Your task to perform on an android device: change the clock display to digital Image 0: 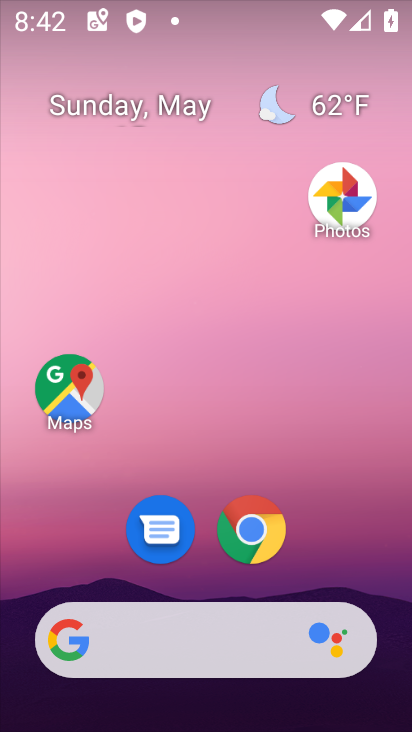
Step 0: drag from (361, 553) to (262, 128)
Your task to perform on an android device: change the clock display to digital Image 1: 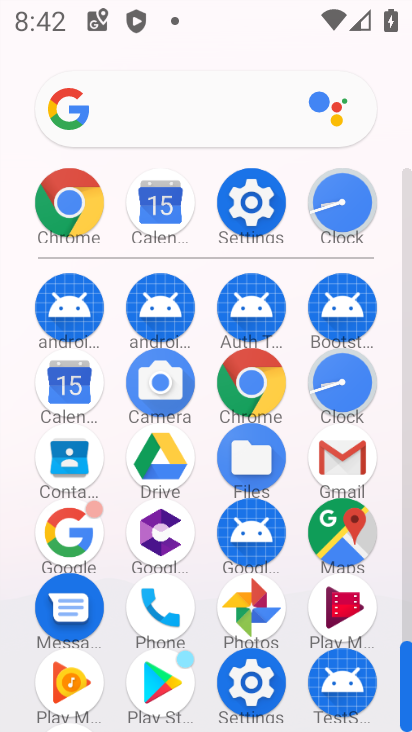
Step 1: click (318, 390)
Your task to perform on an android device: change the clock display to digital Image 2: 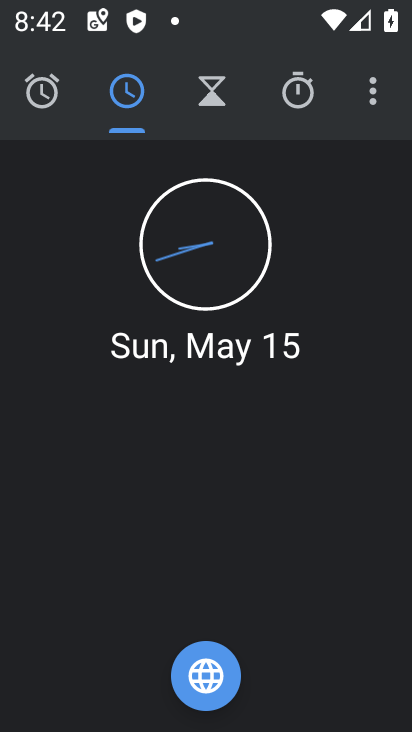
Step 2: drag from (372, 111) to (230, 189)
Your task to perform on an android device: change the clock display to digital Image 3: 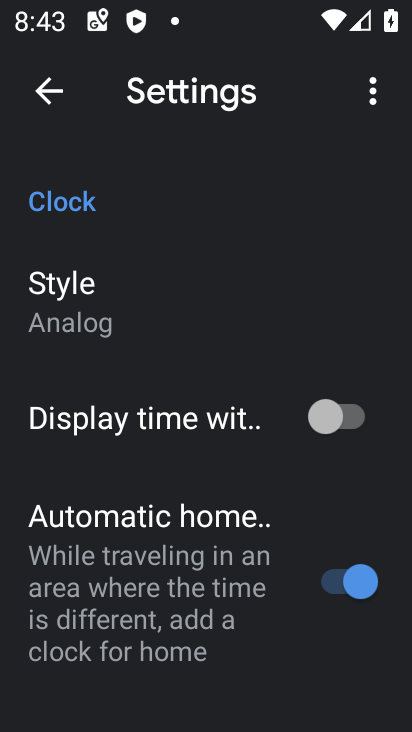
Step 3: drag from (257, 597) to (275, 307)
Your task to perform on an android device: change the clock display to digital Image 4: 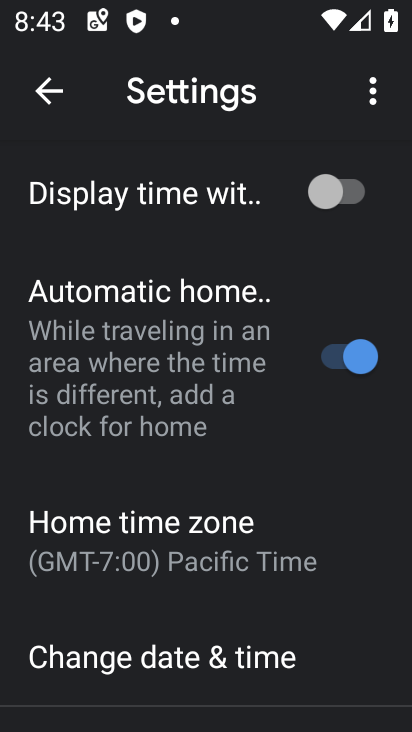
Step 4: drag from (233, 308) to (218, 616)
Your task to perform on an android device: change the clock display to digital Image 5: 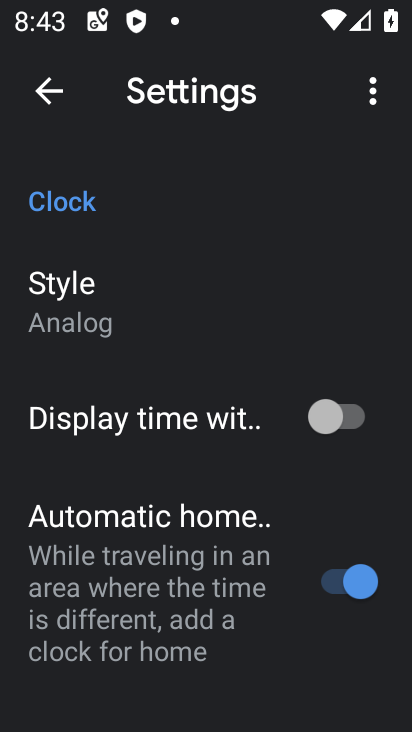
Step 5: click (118, 315)
Your task to perform on an android device: change the clock display to digital Image 6: 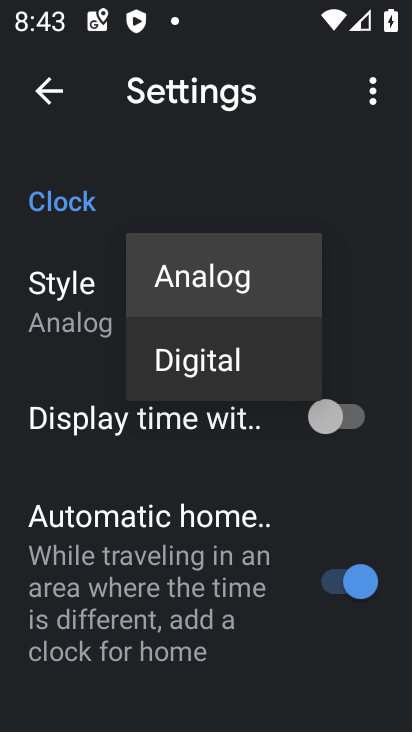
Step 6: click (264, 356)
Your task to perform on an android device: change the clock display to digital Image 7: 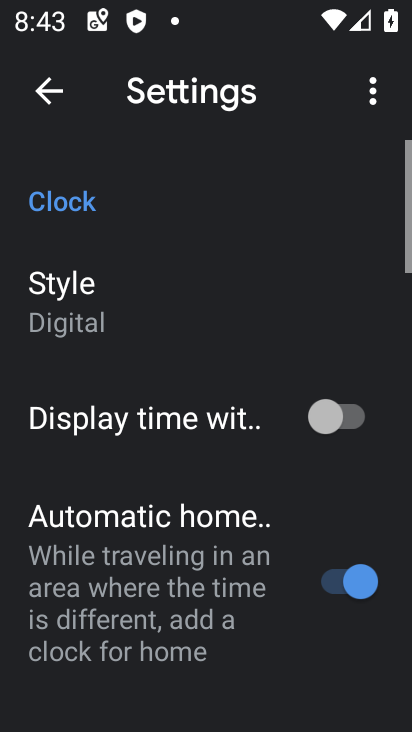
Step 7: task complete